Your task to perform on an android device: check android version Image 0: 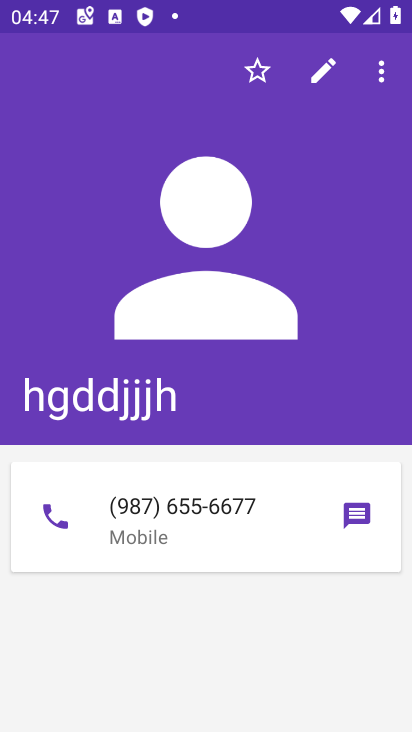
Step 0: press home button
Your task to perform on an android device: check android version Image 1: 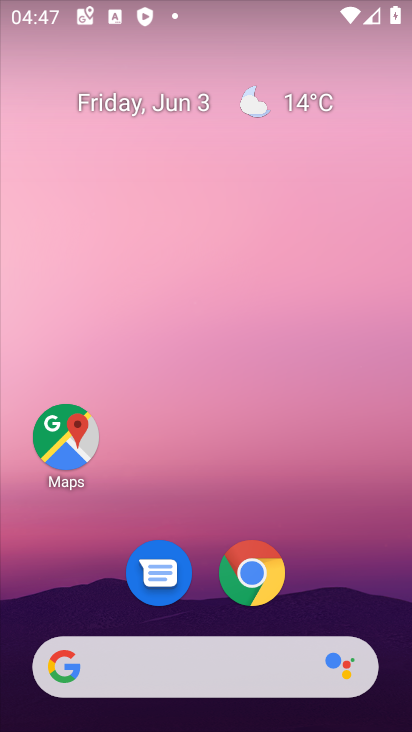
Step 1: drag from (355, 612) to (277, 124)
Your task to perform on an android device: check android version Image 2: 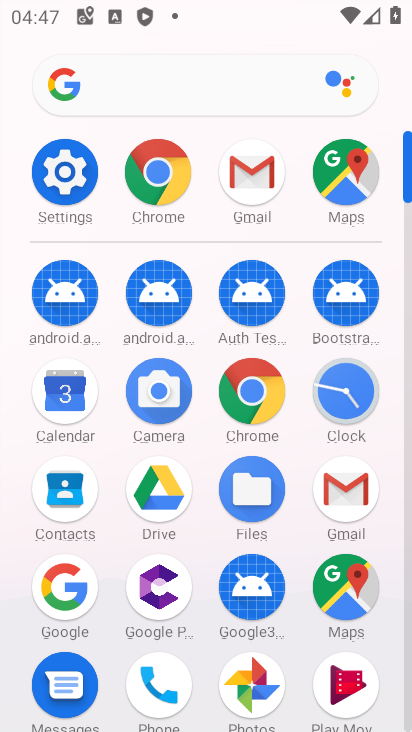
Step 2: click (70, 183)
Your task to perform on an android device: check android version Image 3: 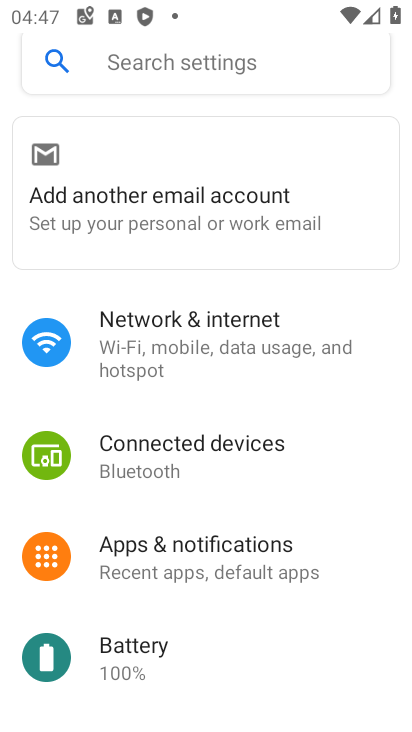
Step 3: drag from (302, 666) to (237, 103)
Your task to perform on an android device: check android version Image 4: 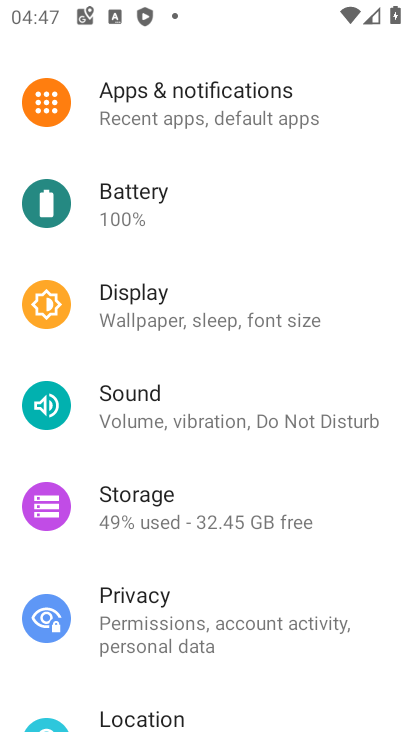
Step 4: drag from (215, 684) to (190, 139)
Your task to perform on an android device: check android version Image 5: 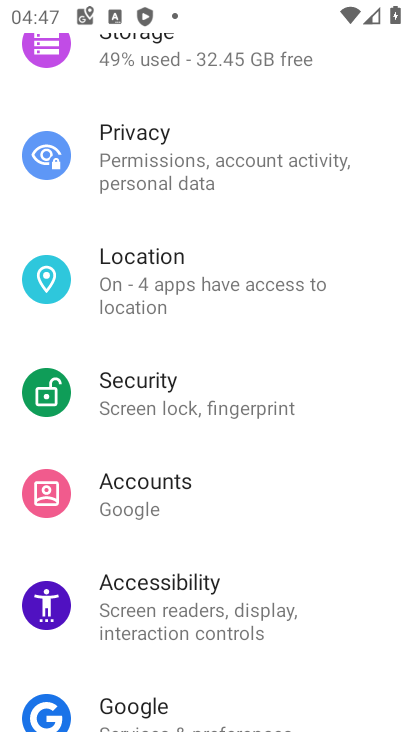
Step 5: drag from (216, 660) to (195, 212)
Your task to perform on an android device: check android version Image 6: 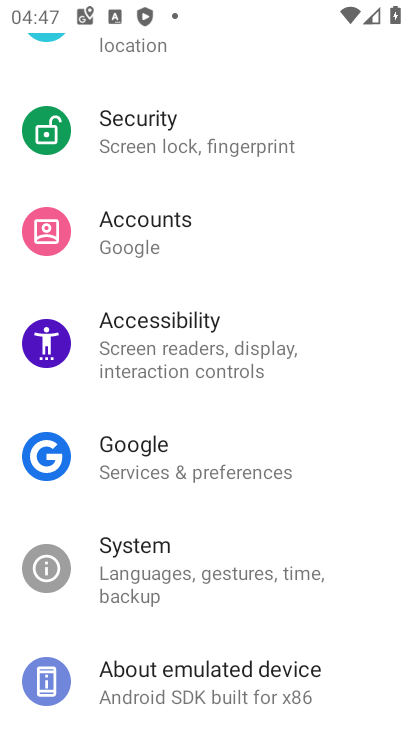
Step 6: click (203, 694)
Your task to perform on an android device: check android version Image 7: 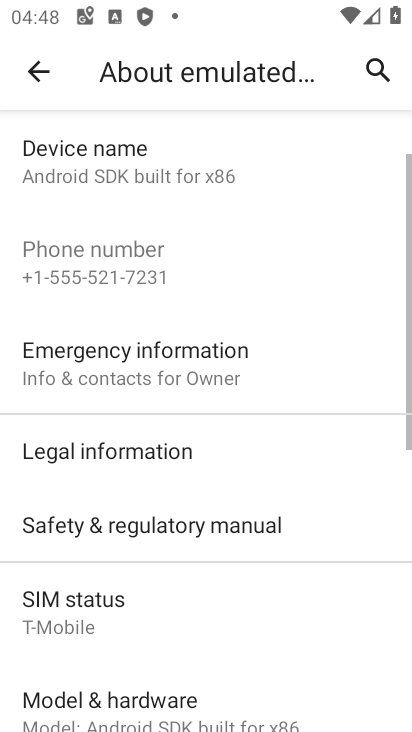
Step 7: drag from (254, 458) to (244, 133)
Your task to perform on an android device: check android version Image 8: 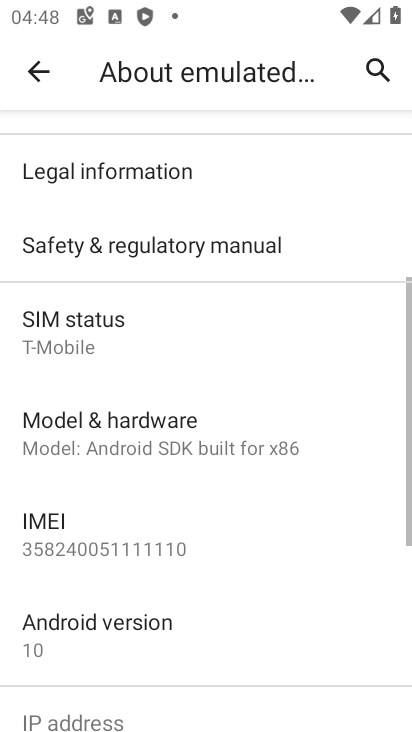
Step 8: click (123, 638)
Your task to perform on an android device: check android version Image 9: 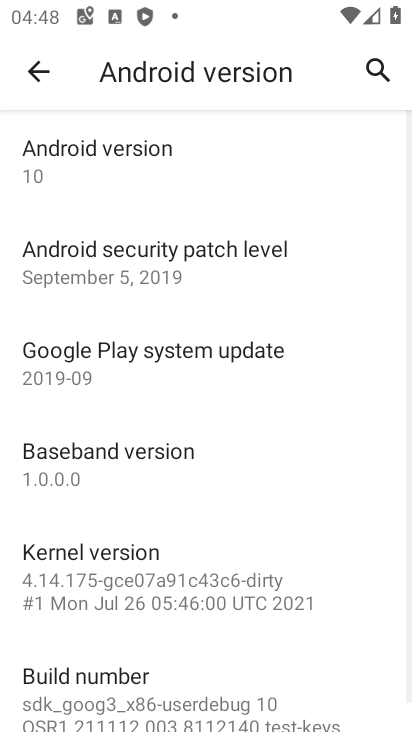
Step 9: click (192, 158)
Your task to perform on an android device: check android version Image 10: 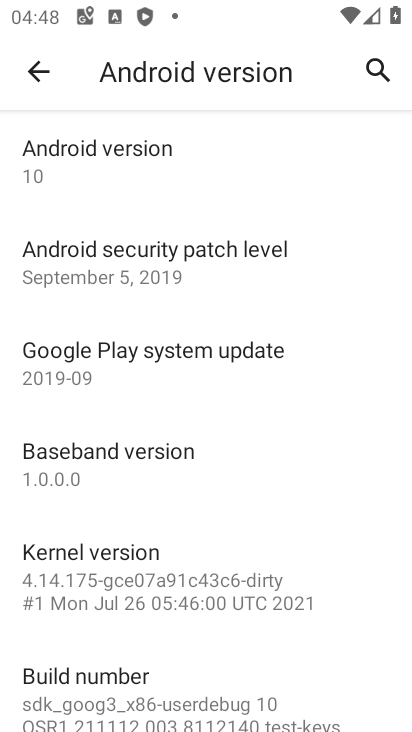
Step 10: task complete